Your task to perform on an android device: open app "Pandora - Music & Podcasts" (install if not already installed), go to login, and select forgot password Image 0: 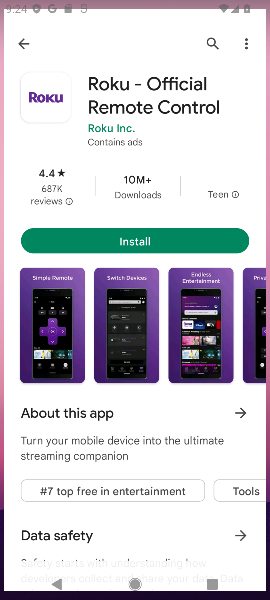
Step 0: press home button
Your task to perform on an android device: open app "Pandora - Music & Podcasts" (install if not already installed), go to login, and select forgot password Image 1: 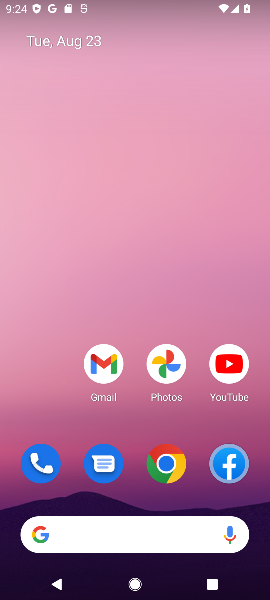
Step 1: drag from (134, 441) to (123, 103)
Your task to perform on an android device: open app "Pandora - Music & Podcasts" (install if not already installed), go to login, and select forgot password Image 2: 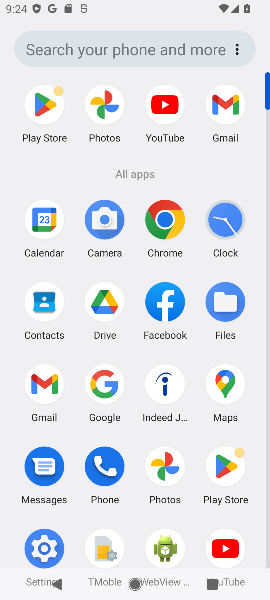
Step 2: click (40, 97)
Your task to perform on an android device: open app "Pandora - Music & Podcasts" (install if not already installed), go to login, and select forgot password Image 3: 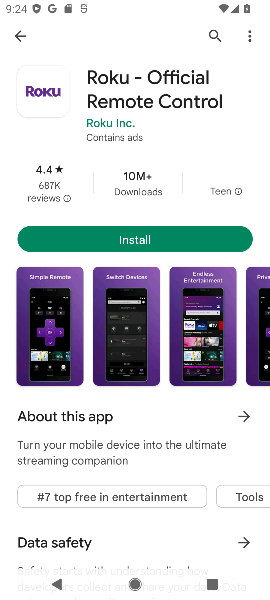
Step 3: click (212, 32)
Your task to perform on an android device: open app "Pandora - Music & Podcasts" (install if not already installed), go to login, and select forgot password Image 4: 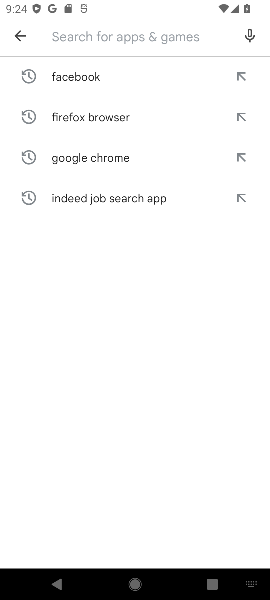
Step 4: type "Pandora - Music & Podcasts"
Your task to perform on an android device: open app "Pandora - Music & Podcasts" (install if not already installed), go to login, and select forgot password Image 5: 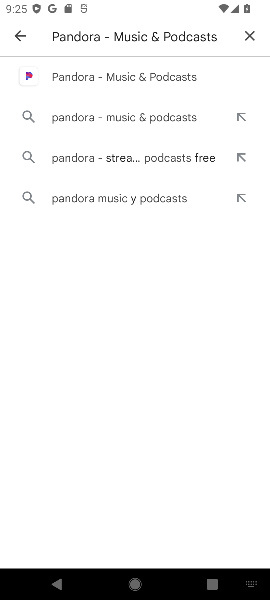
Step 5: click (88, 77)
Your task to perform on an android device: open app "Pandora - Music & Podcasts" (install if not already installed), go to login, and select forgot password Image 6: 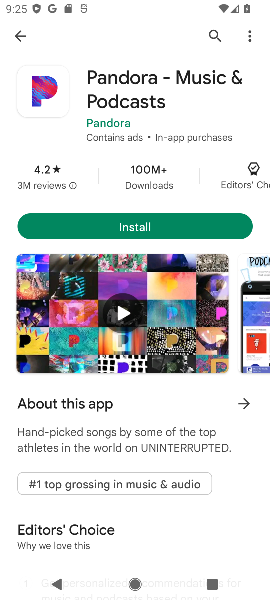
Step 6: click (133, 225)
Your task to perform on an android device: open app "Pandora - Music & Podcasts" (install if not already installed), go to login, and select forgot password Image 7: 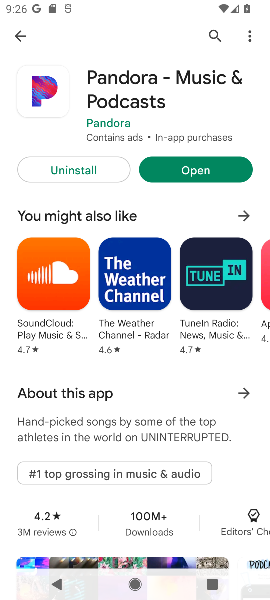
Step 7: click (177, 166)
Your task to perform on an android device: open app "Pandora - Music & Podcasts" (install if not already installed), go to login, and select forgot password Image 8: 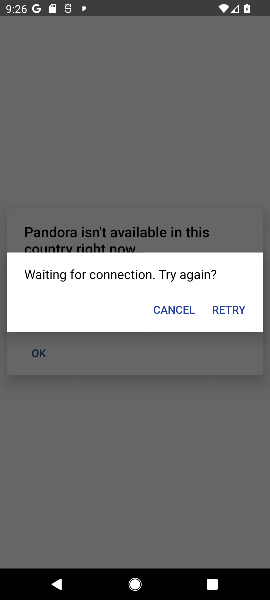
Step 8: click (240, 299)
Your task to perform on an android device: open app "Pandora - Music & Podcasts" (install if not already installed), go to login, and select forgot password Image 9: 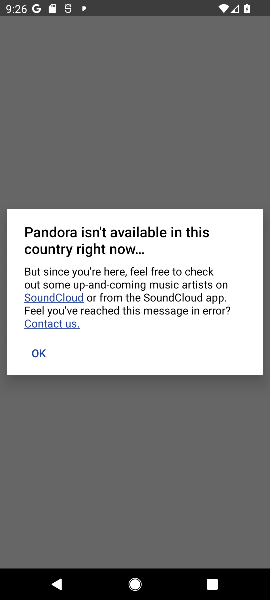
Step 9: task complete